Your task to perform on an android device: Open internet settings Image 0: 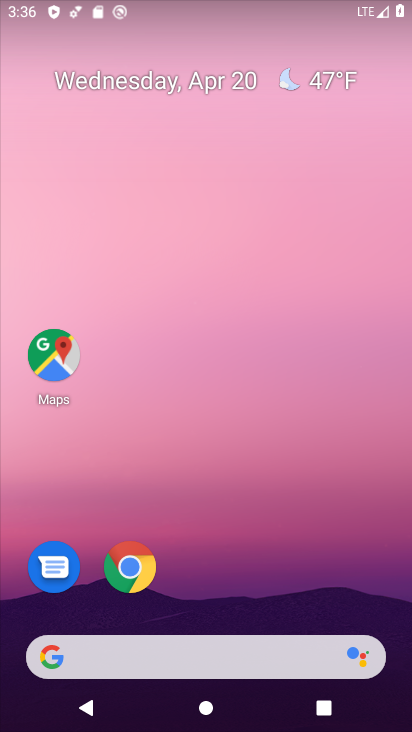
Step 0: drag from (295, 537) to (243, 14)
Your task to perform on an android device: Open internet settings Image 1: 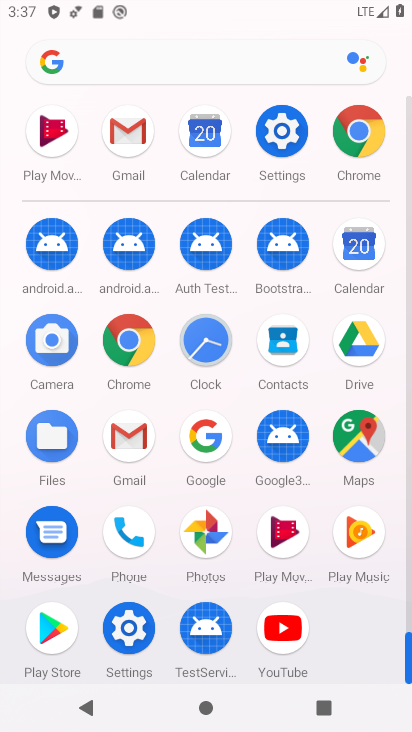
Step 1: drag from (10, 359) to (12, 179)
Your task to perform on an android device: Open internet settings Image 2: 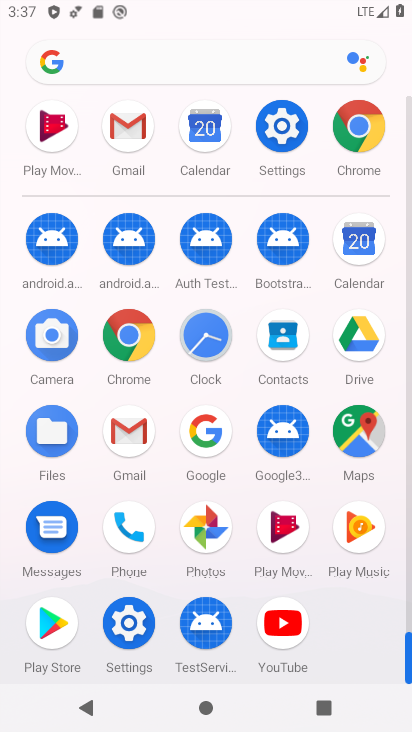
Step 2: click (277, 127)
Your task to perform on an android device: Open internet settings Image 3: 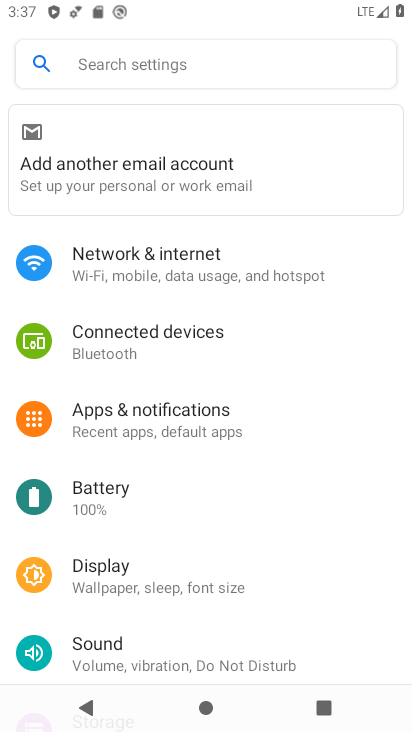
Step 3: drag from (249, 524) to (261, 342)
Your task to perform on an android device: Open internet settings Image 4: 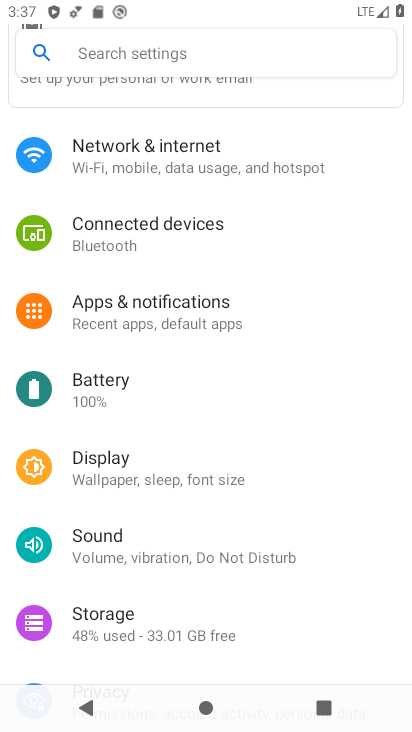
Step 4: click (201, 156)
Your task to perform on an android device: Open internet settings Image 5: 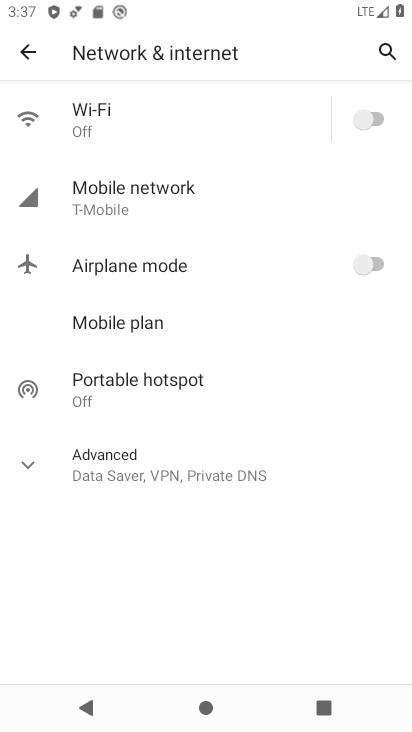
Step 5: task complete